Your task to perform on an android device: turn off notifications in google photos Image 0: 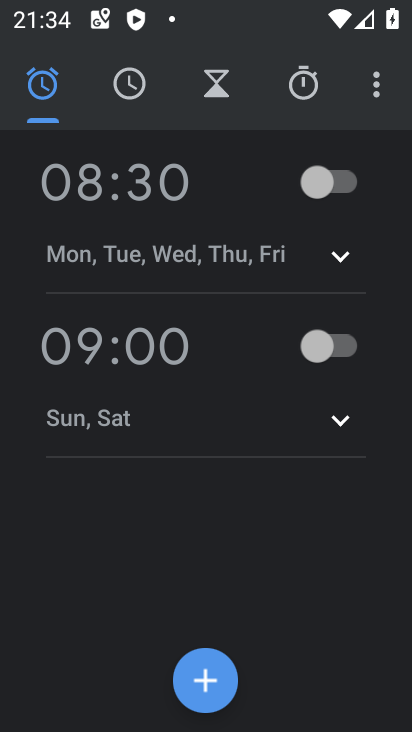
Step 0: press home button
Your task to perform on an android device: turn off notifications in google photos Image 1: 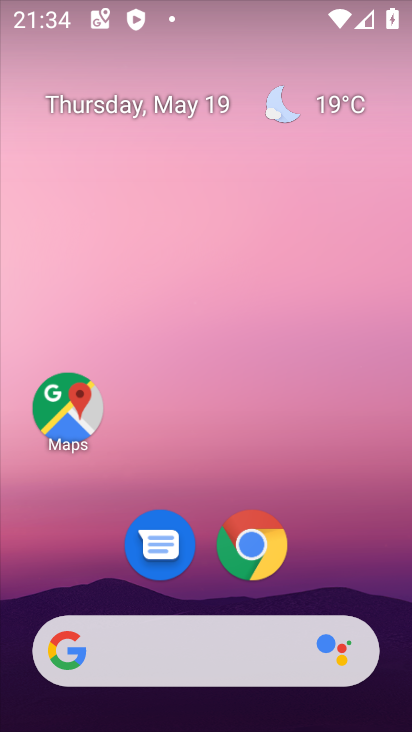
Step 1: drag from (331, 579) to (331, 144)
Your task to perform on an android device: turn off notifications in google photos Image 2: 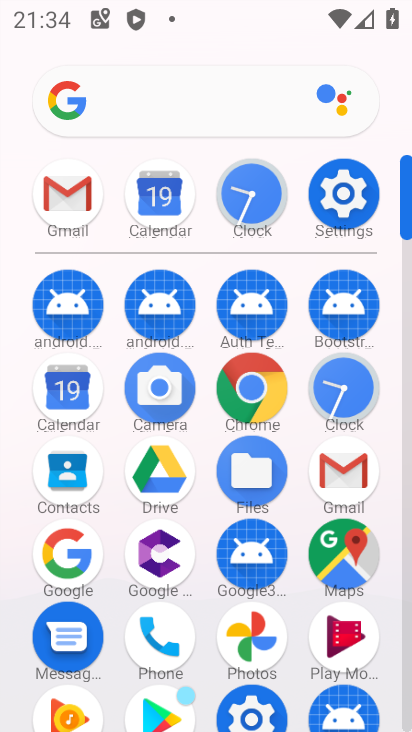
Step 2: click (251, 635)
Your task to perform on an android device: turn off notifications in google photos Image 3: 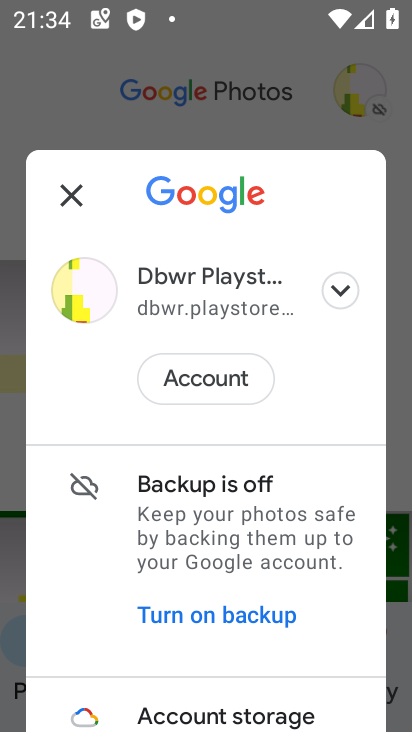
Step 3: click (55, 207)
Your task to perform on an android device: turn off notifications in google photos Image 4: 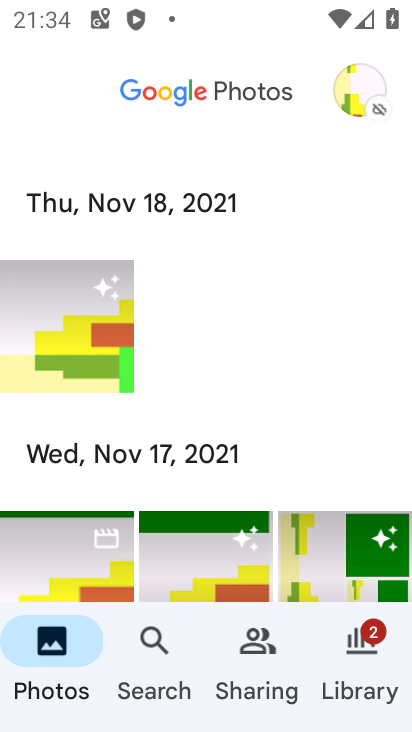
Step 4: click (350, 93)
Your task to perform on an android device: turn off notifications in google photos Image 5: 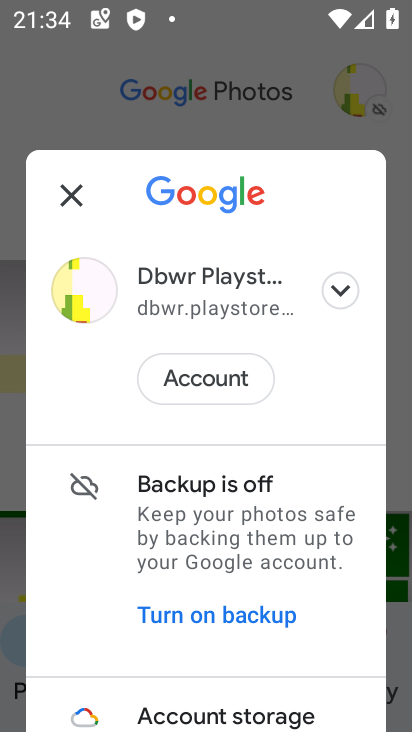
Step 5: drag from (227, 570) to (238, 295)
Your task to perform on an android device: turn off notifications in google photos Image 6: 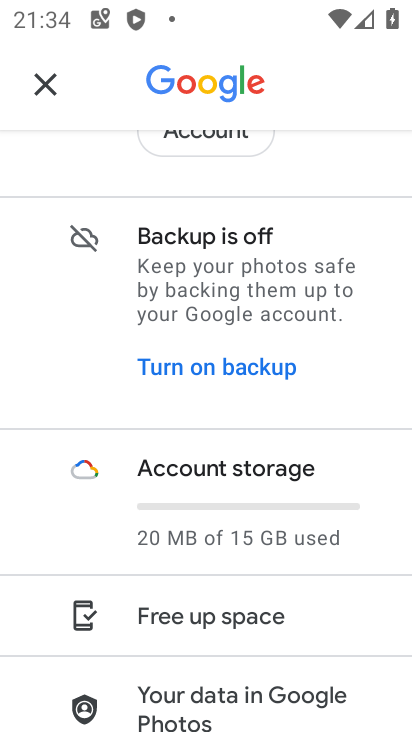
Step 6: click (260, 328)
Your task to perform on an android device: turn off notifications in google photos Image 7: 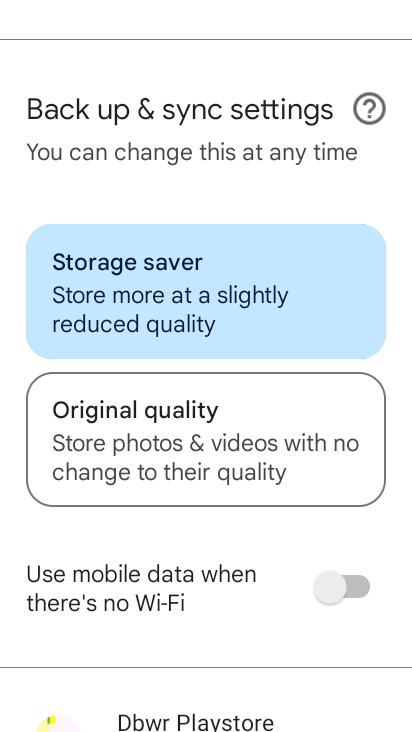
Step 7: task complete